Your task to perform on an android device: turn off notifications settings in the gmail app Image 0: 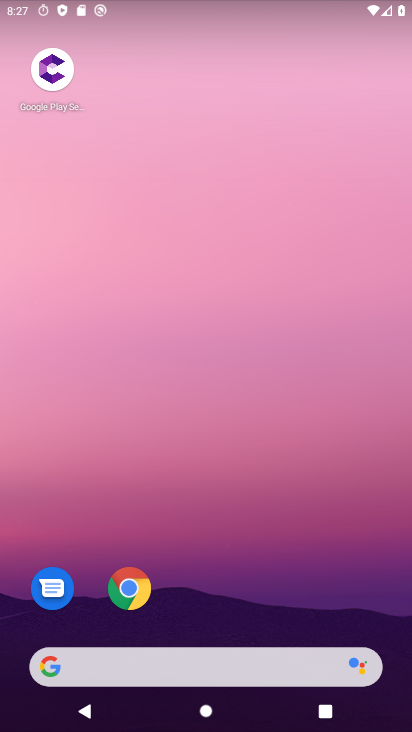
Step 0: drag from (264, 552) to (272, 7)
Your task to perform on an android device: turn off notifications settings in the gmail app Image 1: 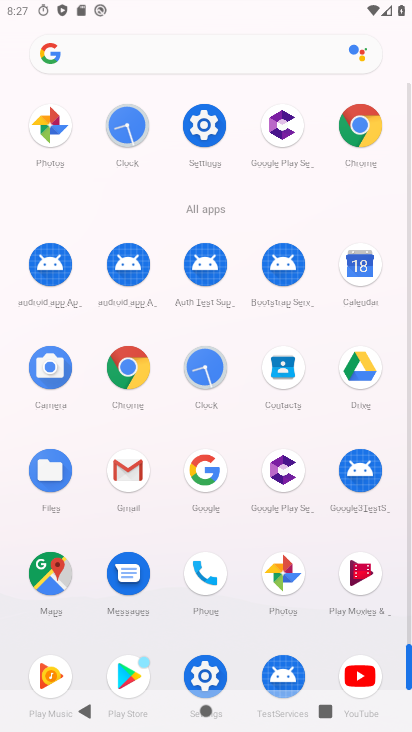
Step 1: click (117, 475)
Your task to perform on an android device: turn off notifications settings in the gmail app Image 2: 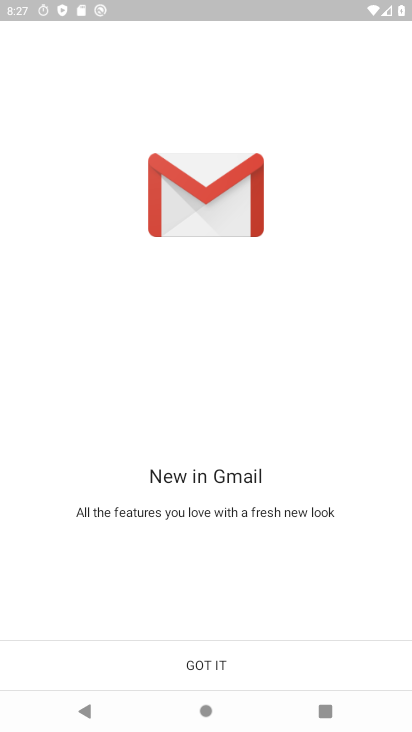
Step 2: click (173, 670)
Your task to perform on an android device: turn off notifications settings in the gmail app Image 3: 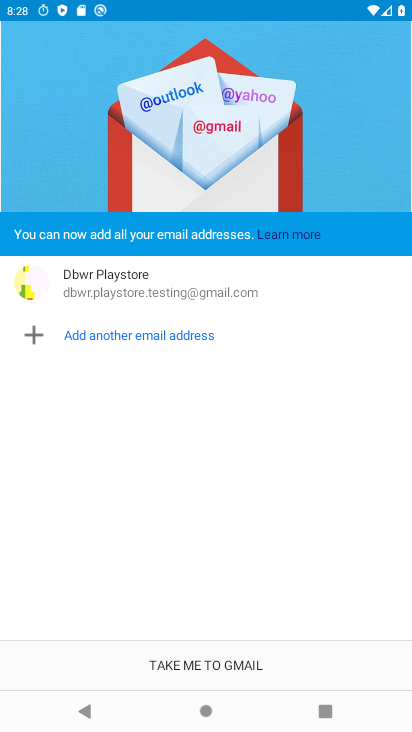
Step 3: click (247, 660)
Your task to perform on an android device: turn off notifications settings in the gmail app Image 4: 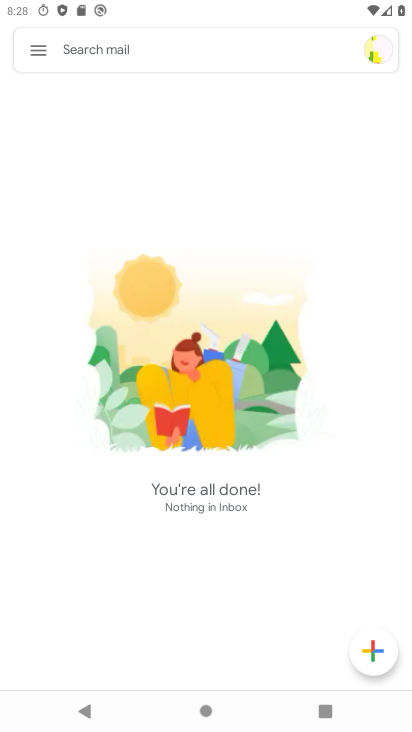
Step 4: click (35, 35)
Your task to perform on an android device: turn off notifications settings in the gmail app Image 5: 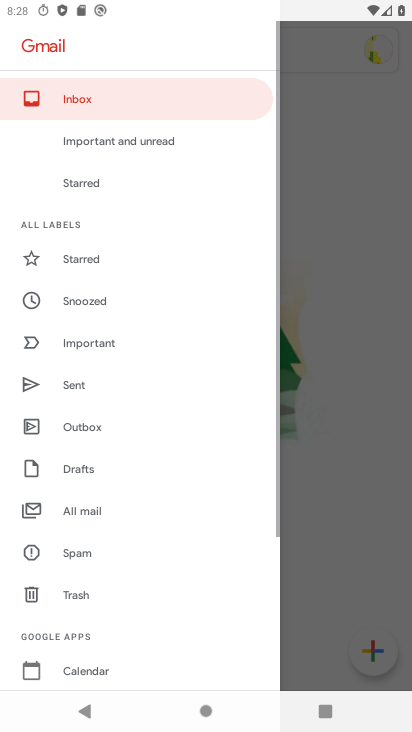
Step 5: drag from (120, 575) to (138, 199)
Your task to perform on an android device: turn off notifications settings in the gmail app Image 6: 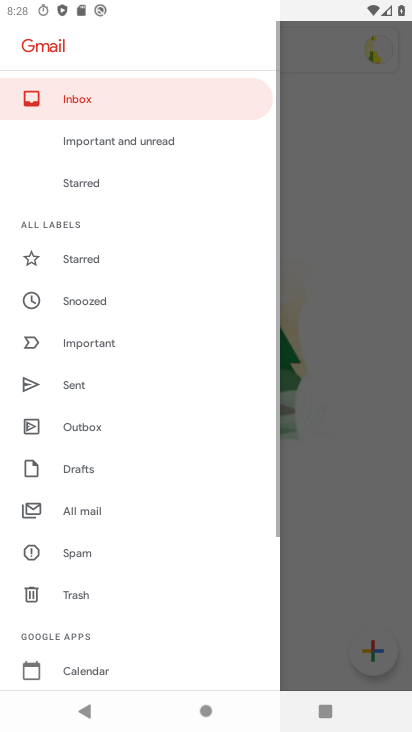
Step 6: drag from (145, 659) to (195, 270)
Your task to perform on an android device: turn off notifications settings in the gmail app Image 7: 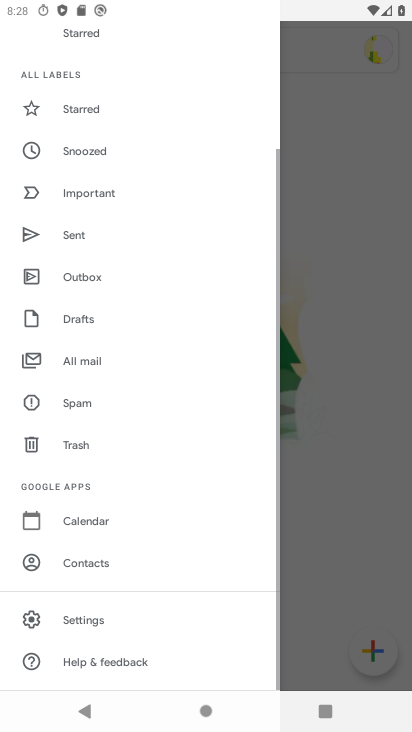
Step 7: click (105, 612)
Your task to perform on an android device: turn off notifications settings in the gmail app Image 8: 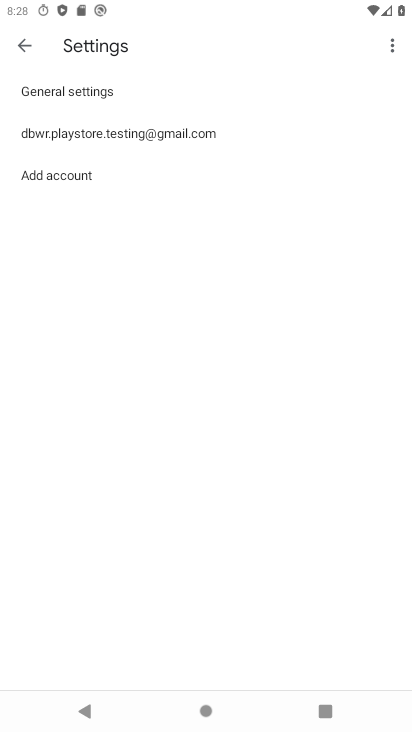
Step 8: click (84, 137)
Your task to perform on an android device: turn off notifications settings in the gmail app Image 9: 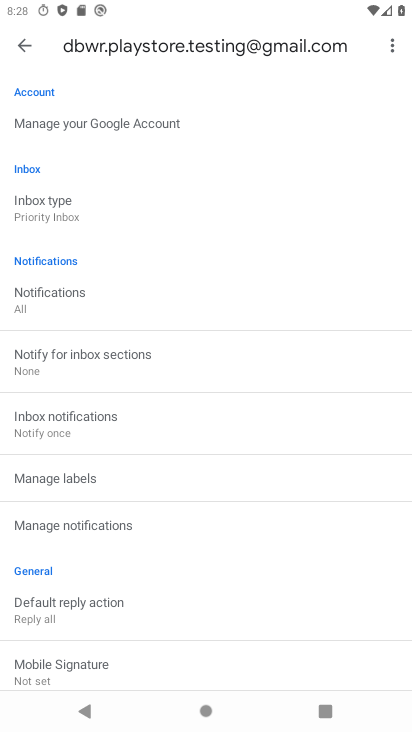
Step 9: drag from (226, 445) to (265, 193)
Your task to perform on an android device: turn off notifications settings in the gmail app Image 10: 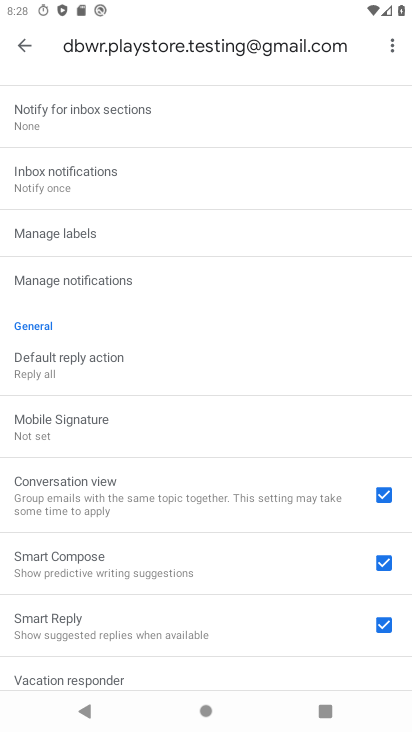
Step 10: drag from (202, 386) to (183, 549)
Your task to perform on an android device: turn off notifications settings in the gmail app Image 11: 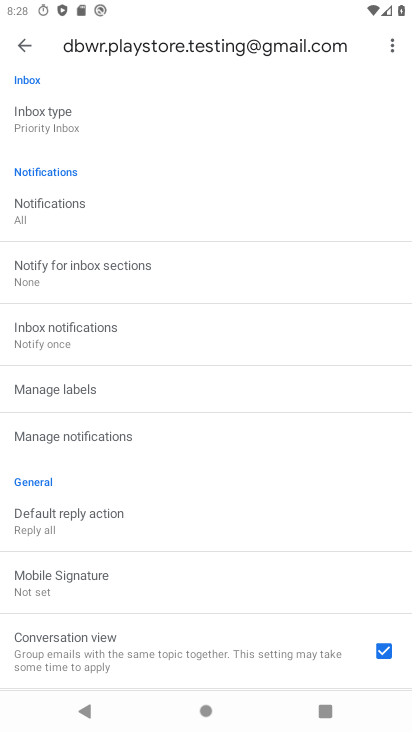
Step 11: drag from (230, 179) to (207, 495)
Your task to perform on an android device: turn off notifications settings in the gmail app Image 12: 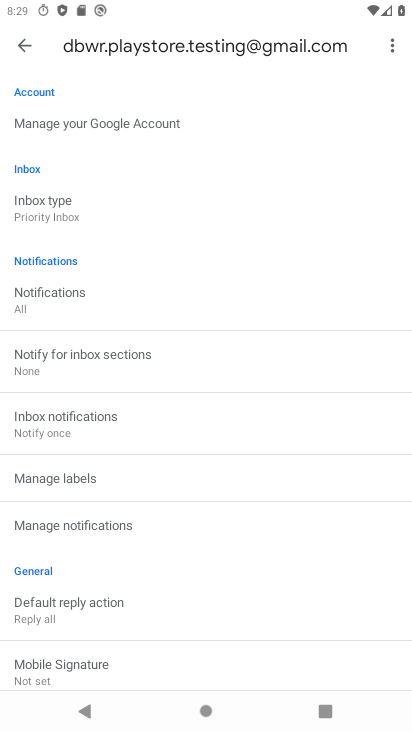
Step 12: click (72, 299)
Your task to perform on an android device: turn off notifications settings in the gmail app Image 13: 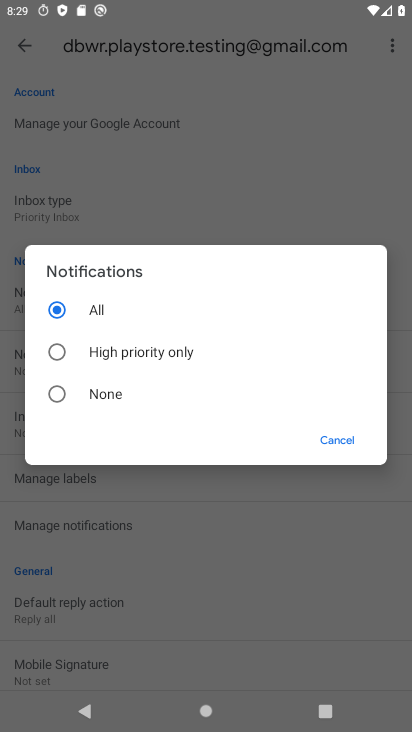
Step 13: click (62, 400)
Your task to perform on an android device: turn off notifications settings in the gmail app Image 14: 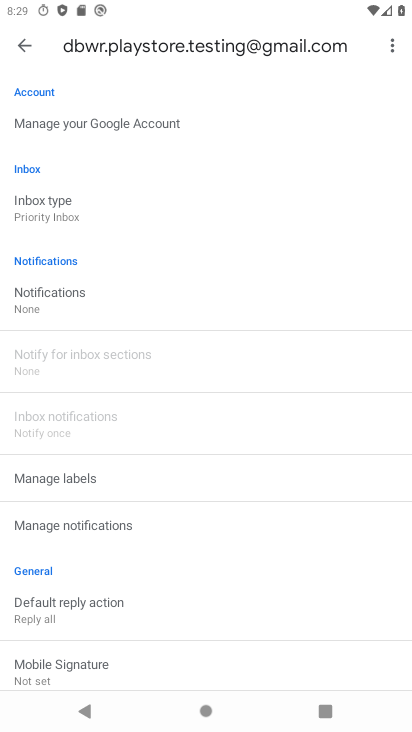
Step 14: task complete